Your task to perform on an android device: Go to Google Image 0: 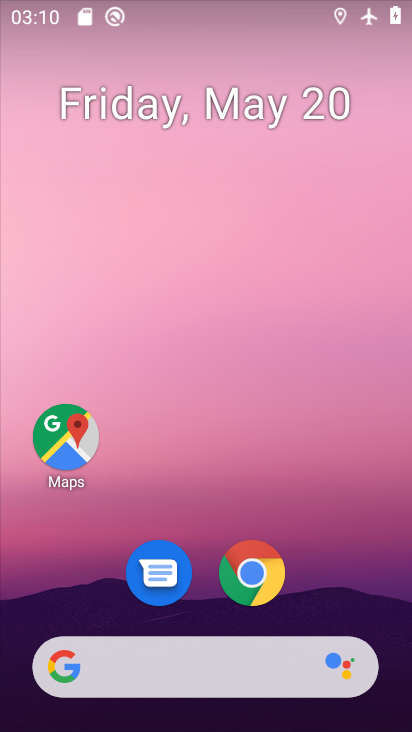
Step 0: drag from (213, 618) to (213, 192)
Your task to perform on an android device: Go to Google Image 1: 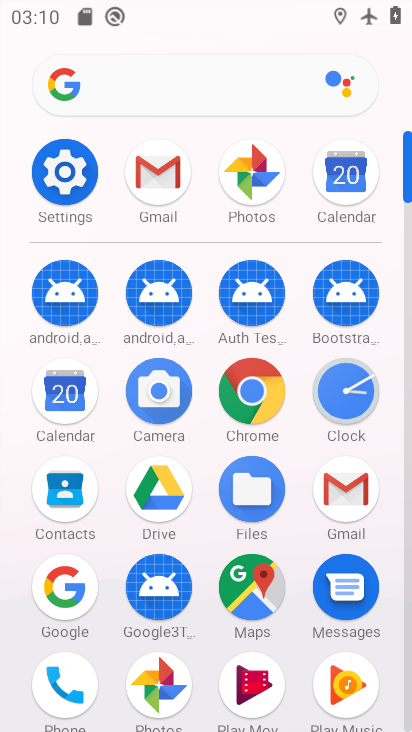
Step 1: click (69, 577)
Your task to perform on an android device: Go to Google Image 2: 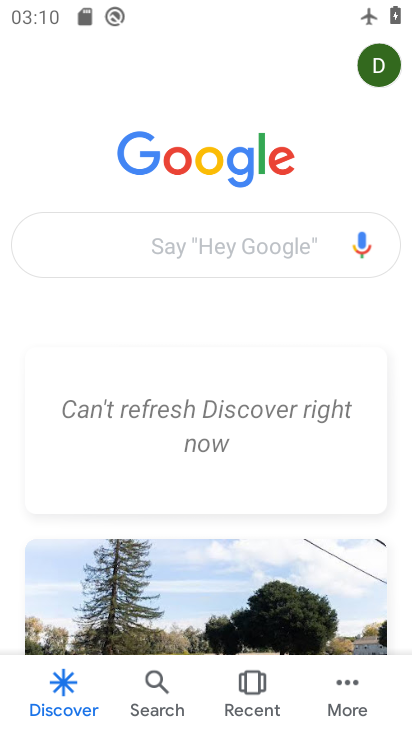
Step 2: task complete